Your task to perform on an android device: Go to Maps Image 0: 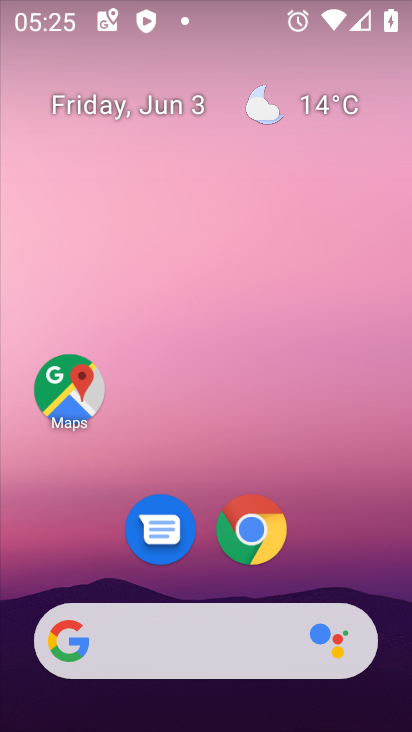
Step 0: click (62, 387)
Your task to perform on an android device: Go to Maps Image 1: 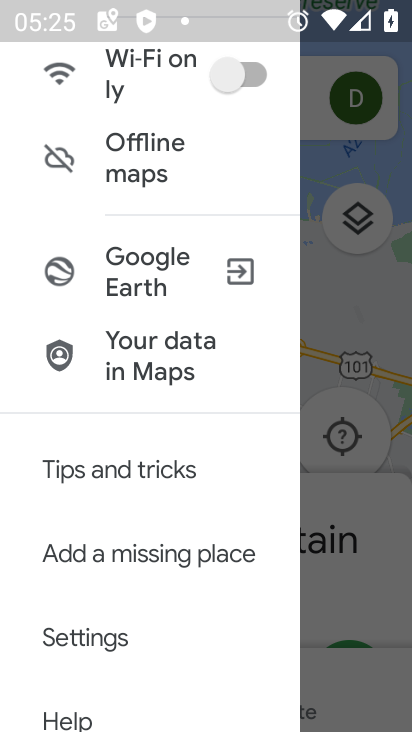
Step 1: task complete